Your task to perform on an android device: Open calendar and show me the fourth week of next month Image 0: 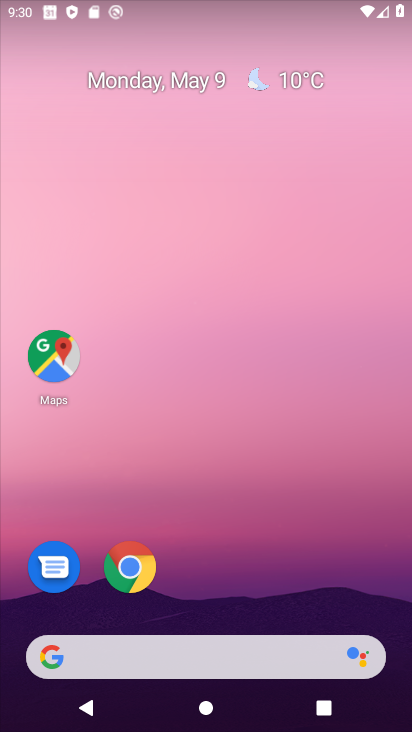
Step 0: drag from (237, 544) to (313, 44)
Your task to perform on an android device: Open calendar and show me the fourth week of next month Image 1: 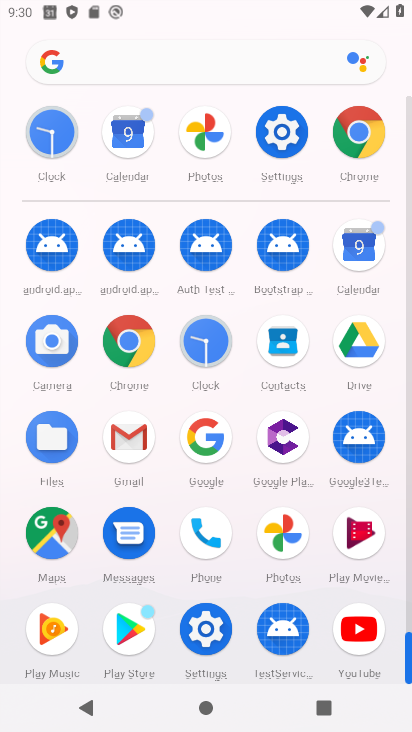
Step 1: click (351, 240)
Your task to perform on an android device: Open calendar and show me the fourth week of next month Image 2: 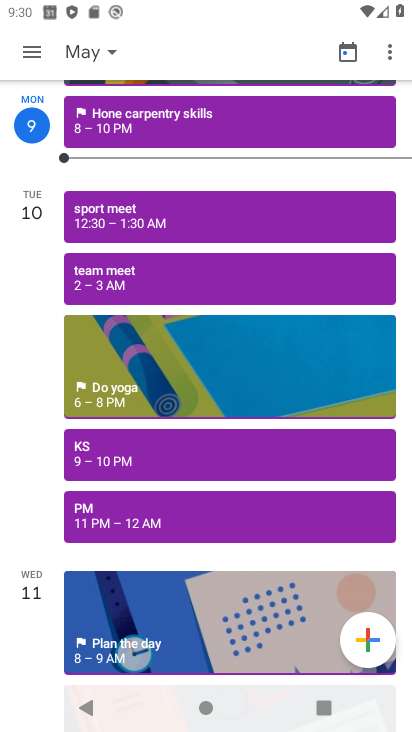
Step 2: click (33, 47)
Your task to perform on an android device: Open calendar and show me the fourth week of next month Image 3: 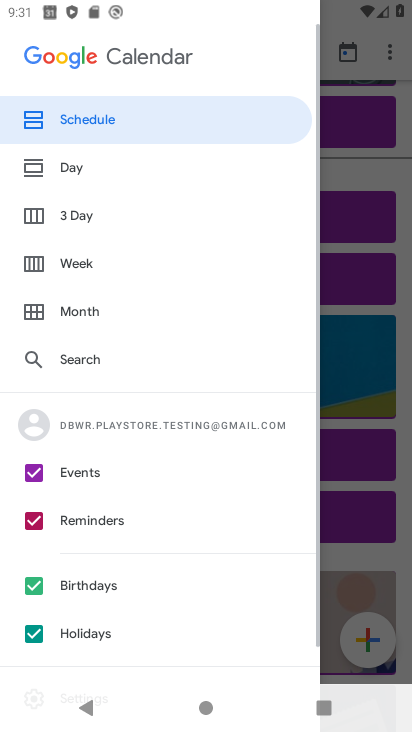
Step 3: click (24, 256)
Your task to perform on an android device: Open calendar and show me the fourth week of next month Image 4: 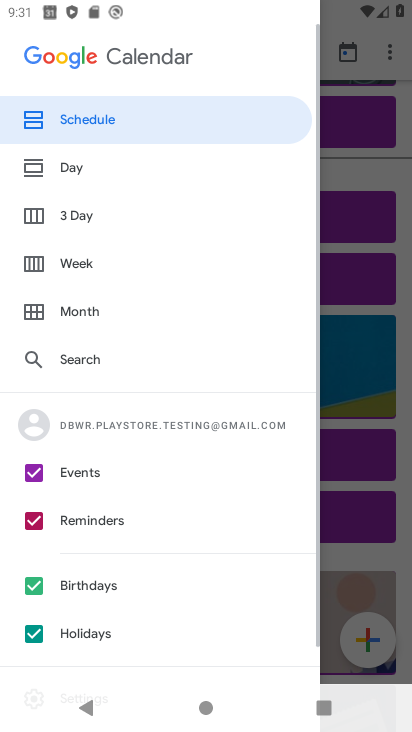
Step 4: click (38, 267)
Your task to perform on an android device: Open calendar and show me the fourth week of next month Image 5: 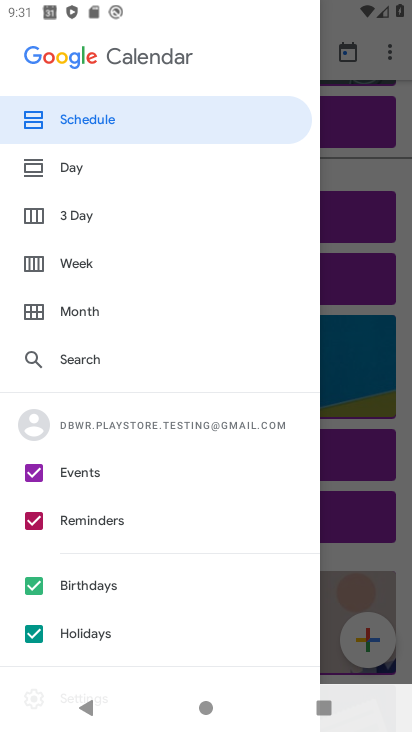
Step 5: click (36, 308)
Your task to perform on an android device: Open calendar and show me the fourth week of next month Image 6: 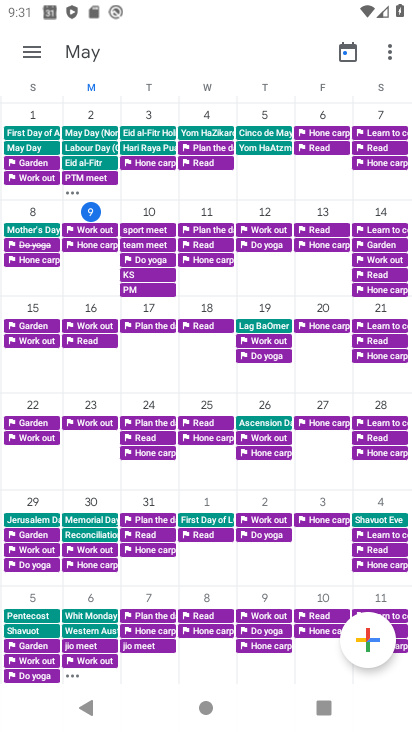
Step 6: drag from (372, 280) to (0, 242)
Your task to perform on an android device: Open calendar and show me the fourth week of next month Image 7: 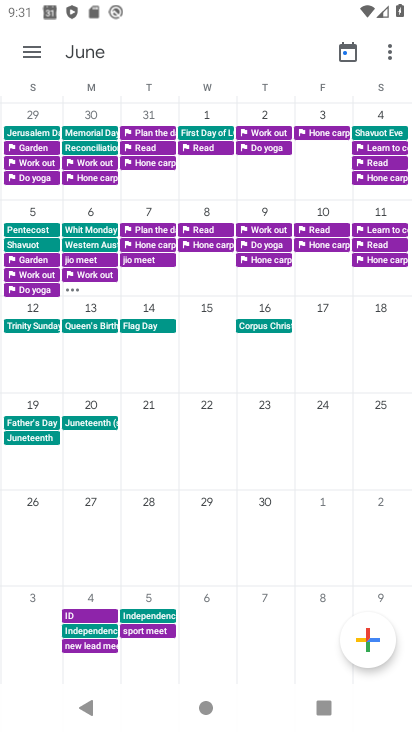
Step 7: click (34, 511)
Your task to perform on an android device: Open calendar and show me the fourth week of next month Image 8: 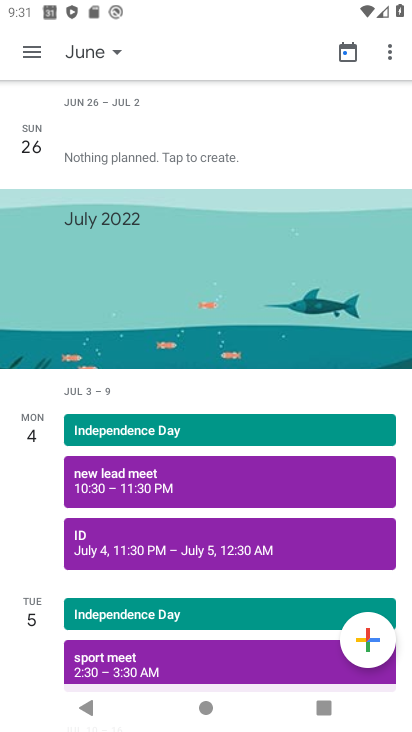
Step 8: click (33, 54)
Your task to perform on an android device: Open calendar and show me the fourth week of next month Image 9: 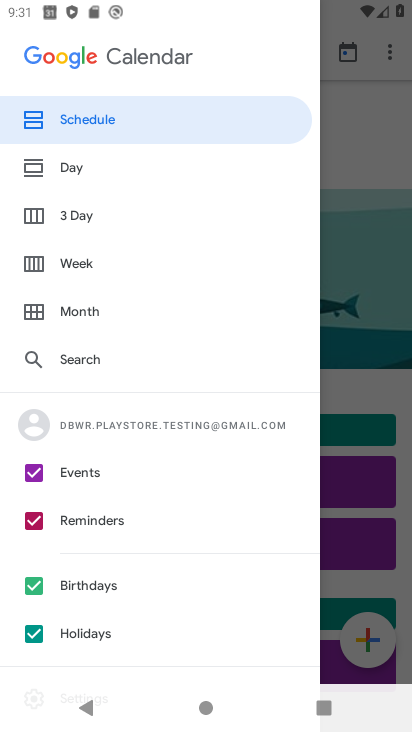
Step 9: click (39, 265)
Your task to perform on an android device: Open calendar and show me the fourth week of next month Image 10: 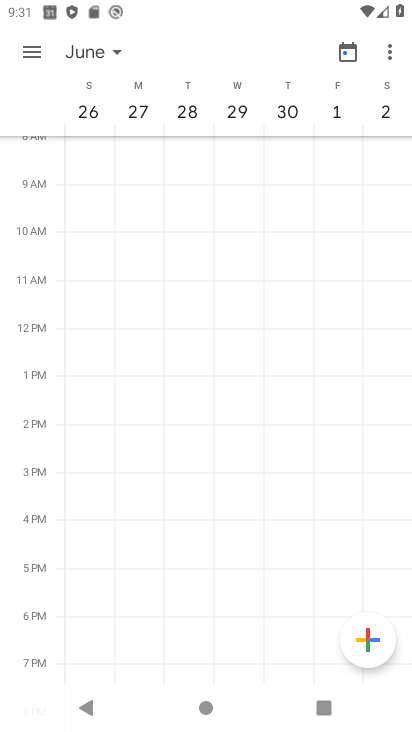
Step 10: task complete